Your task to perform on an android device: choose inbox layout in the gmail app Image 0: 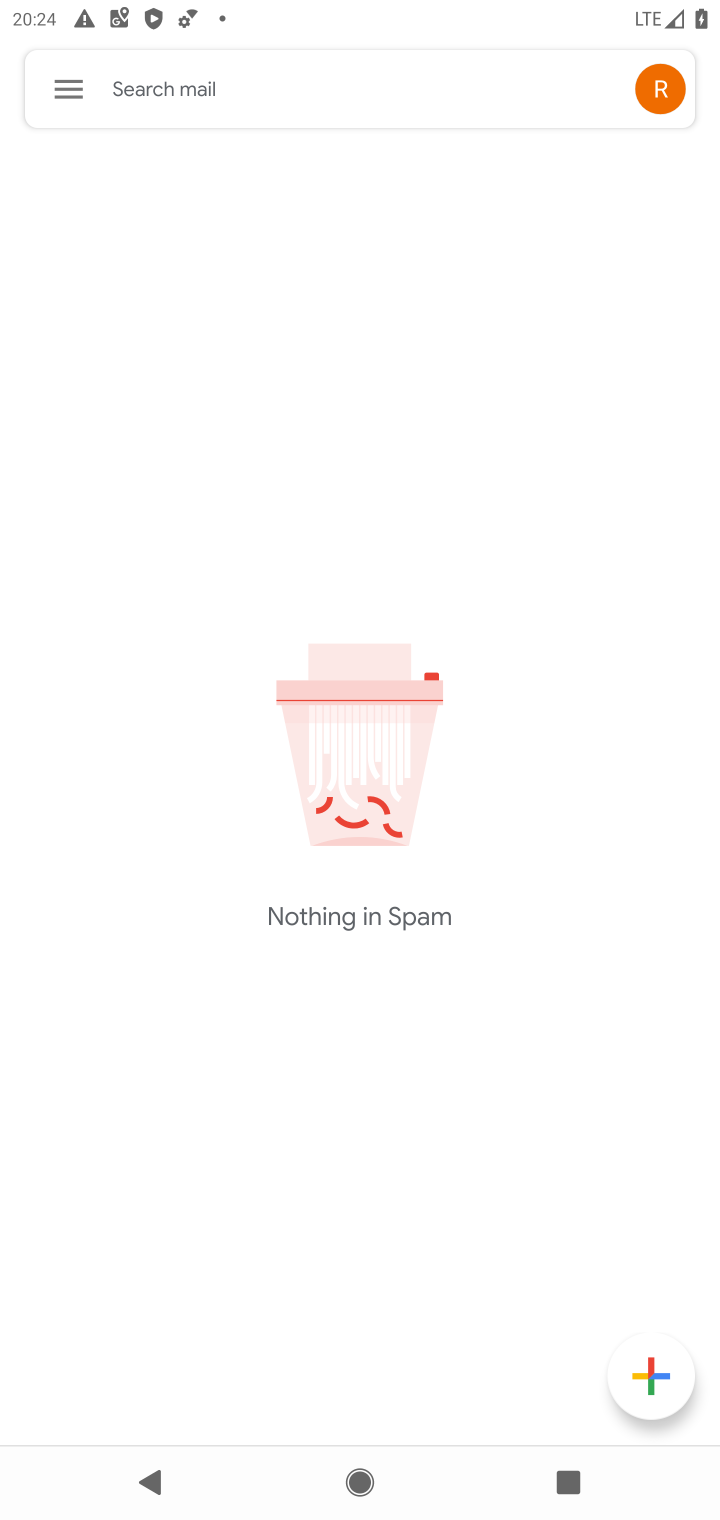
Step 0: press home button
Your task to perform on an android device: choose inbox layout in the gmail app Image 1: 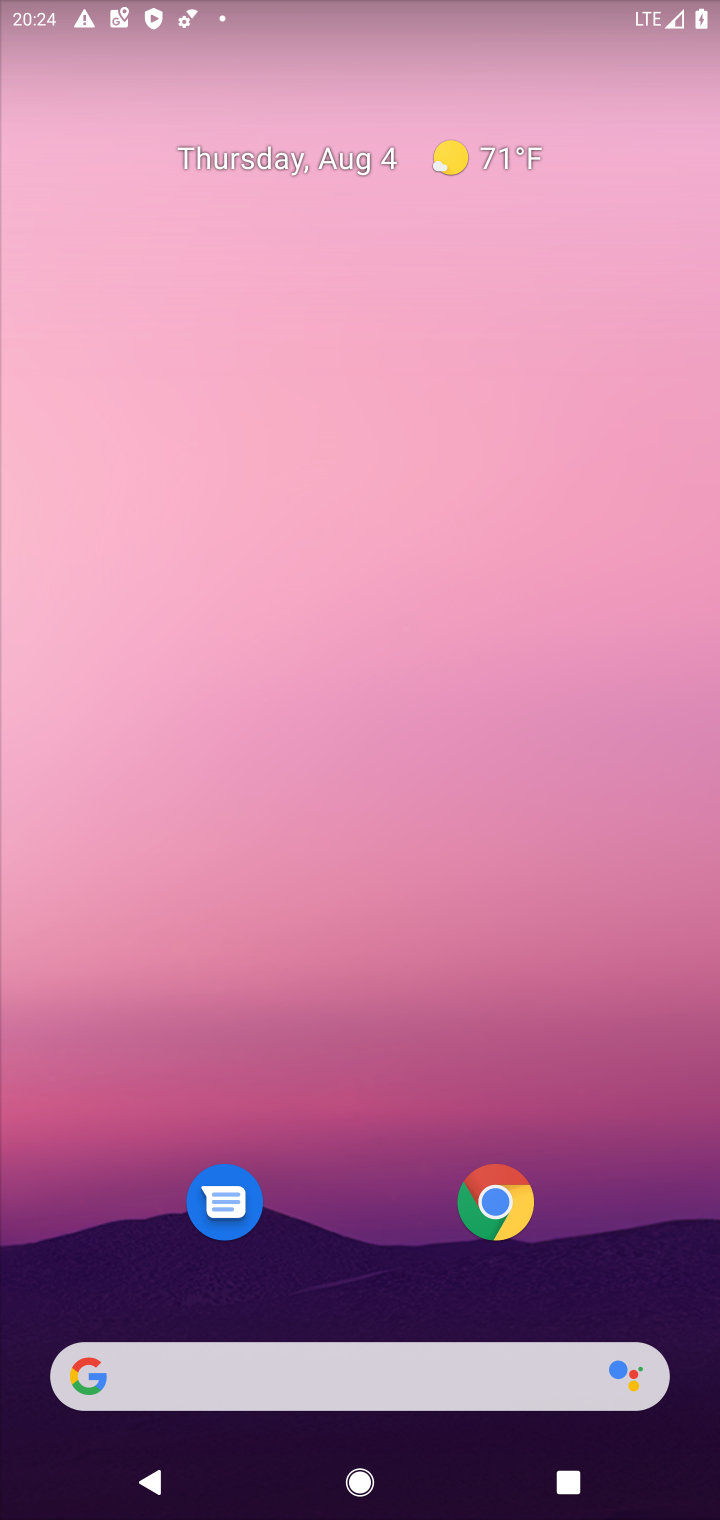
Step 1: drag from (393, 860) to (401, 356)
Your task to perform on an android device: choose inbox layout in the gmail app Image 2: 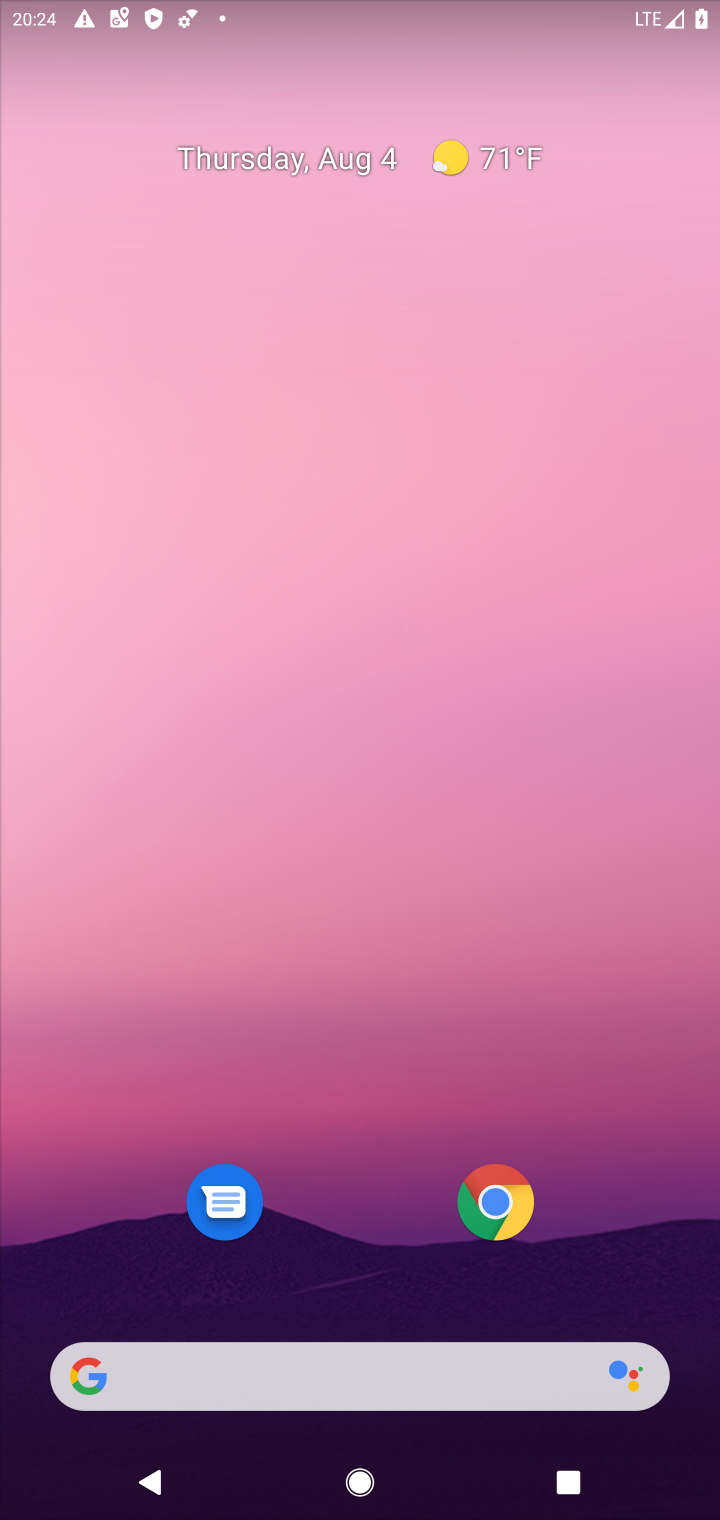
Step 2: drag from (360, 1234) to (412, 370)
Your task to perform on an android device: choose inbox layout in the gmail app Image 3: 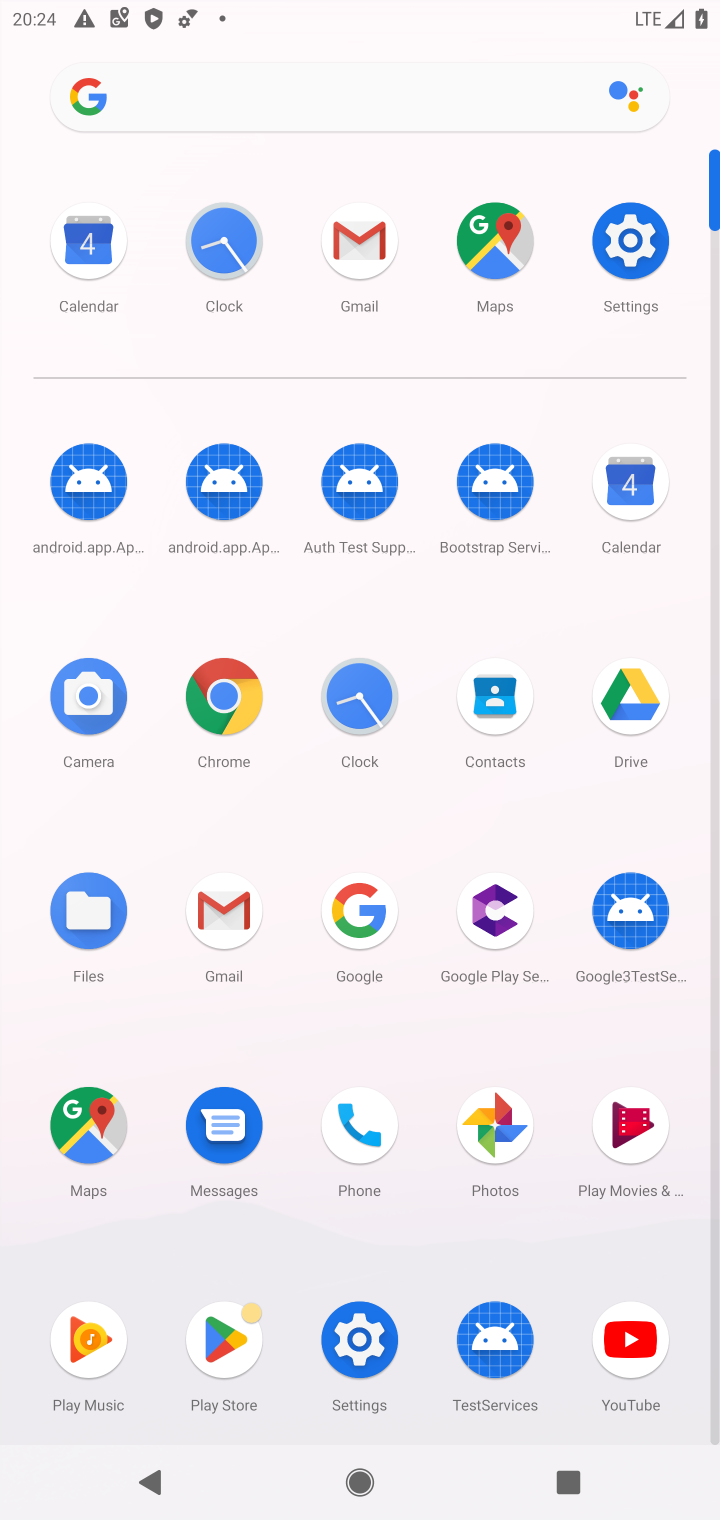
Step 3: click (375, 276)
Your task to perform on an android device: choose inbox layout in the gmail app Image 4: 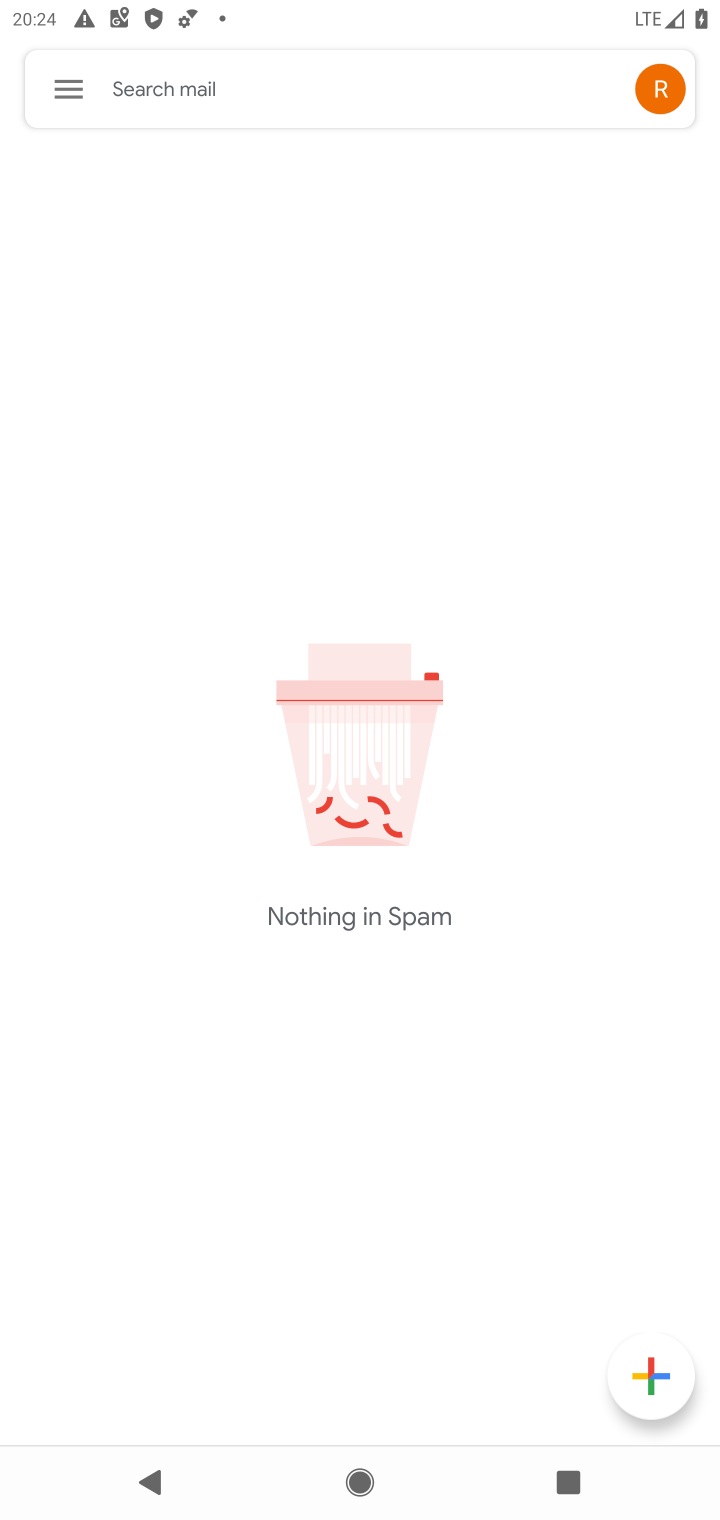
Step 4: click (53, 86)
Your task to perform on an android device: choose inbox layout in the gmail app Image 5: 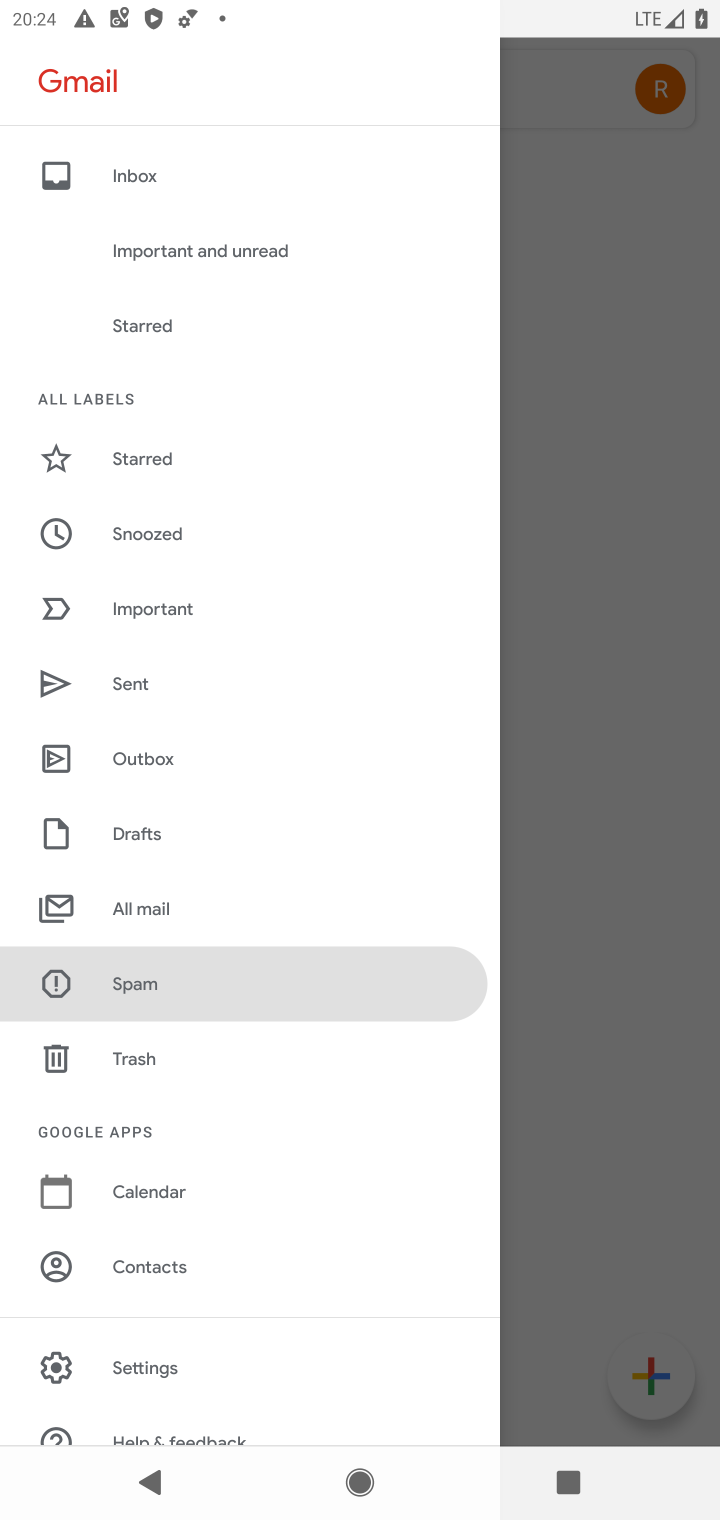
Step 5: click (208, 1381)
Your task to perform on an android device: choose inbox layout in the gmail app Image 6: 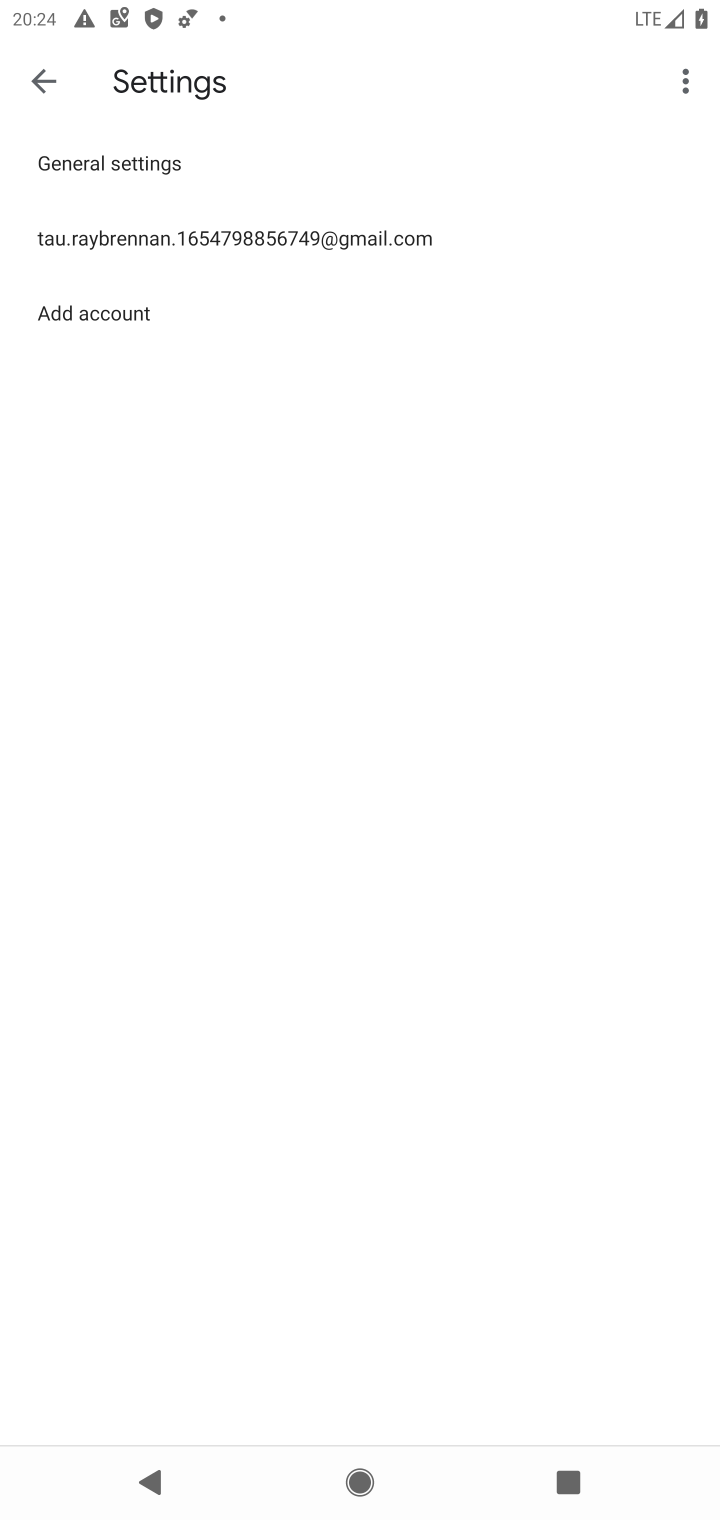
Step 6: click (322, 243)
Your task to perform on an android device: choose inbox layout in the gmail app Image 7: 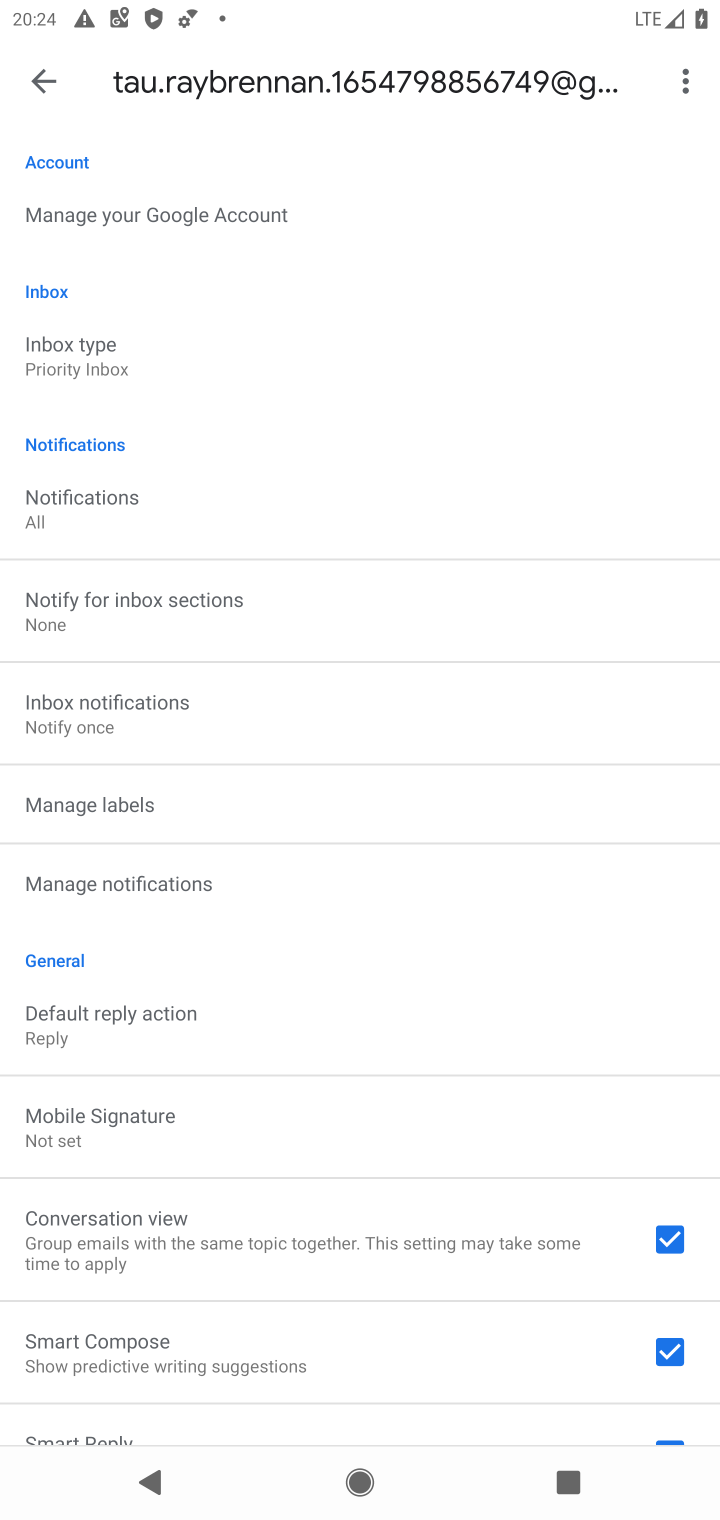
Step 7: click (175, 346)
Your task to perform on an android device: choose inbox layout in the gmail app Image 8: 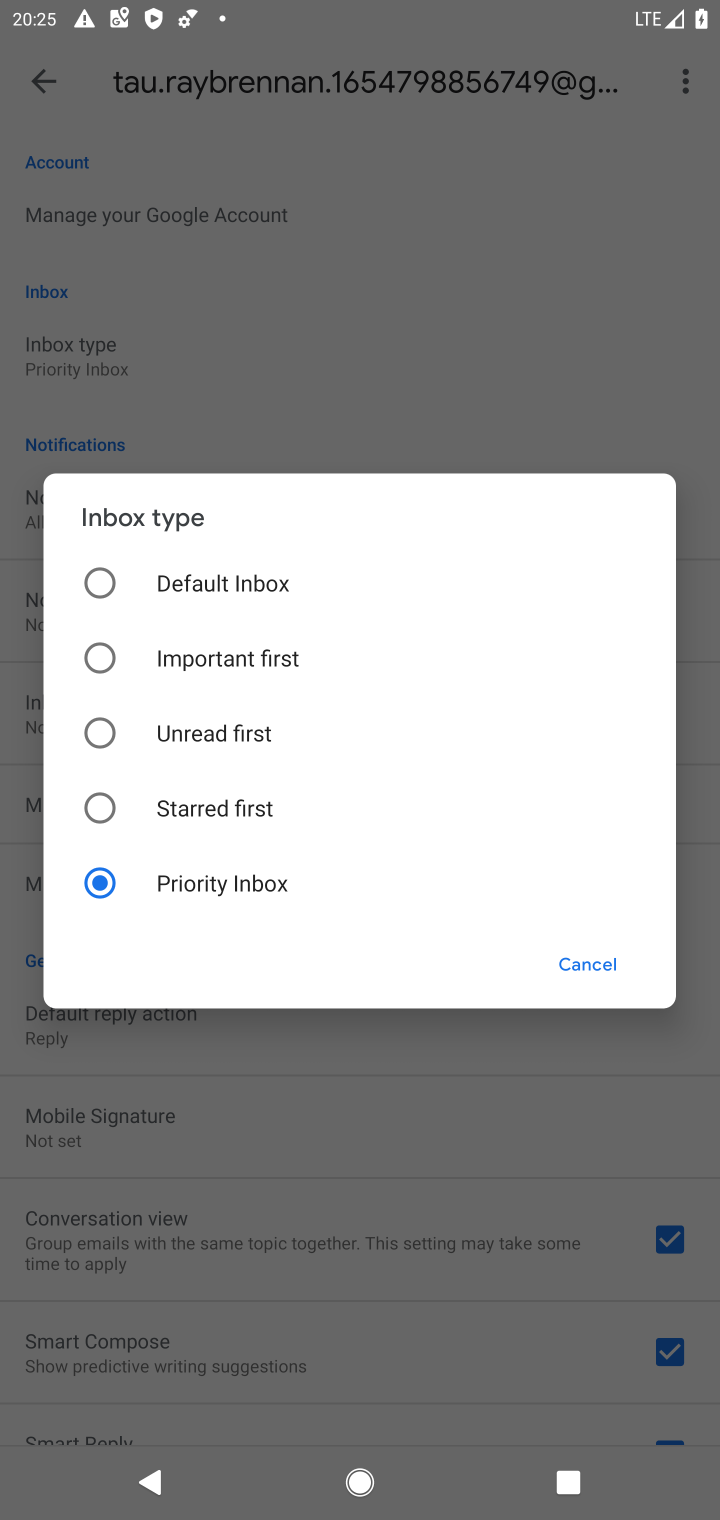
Step 8: click (235, 588)
Your task to perform on an android device: choose inbox layout in the gmail app Image 9: 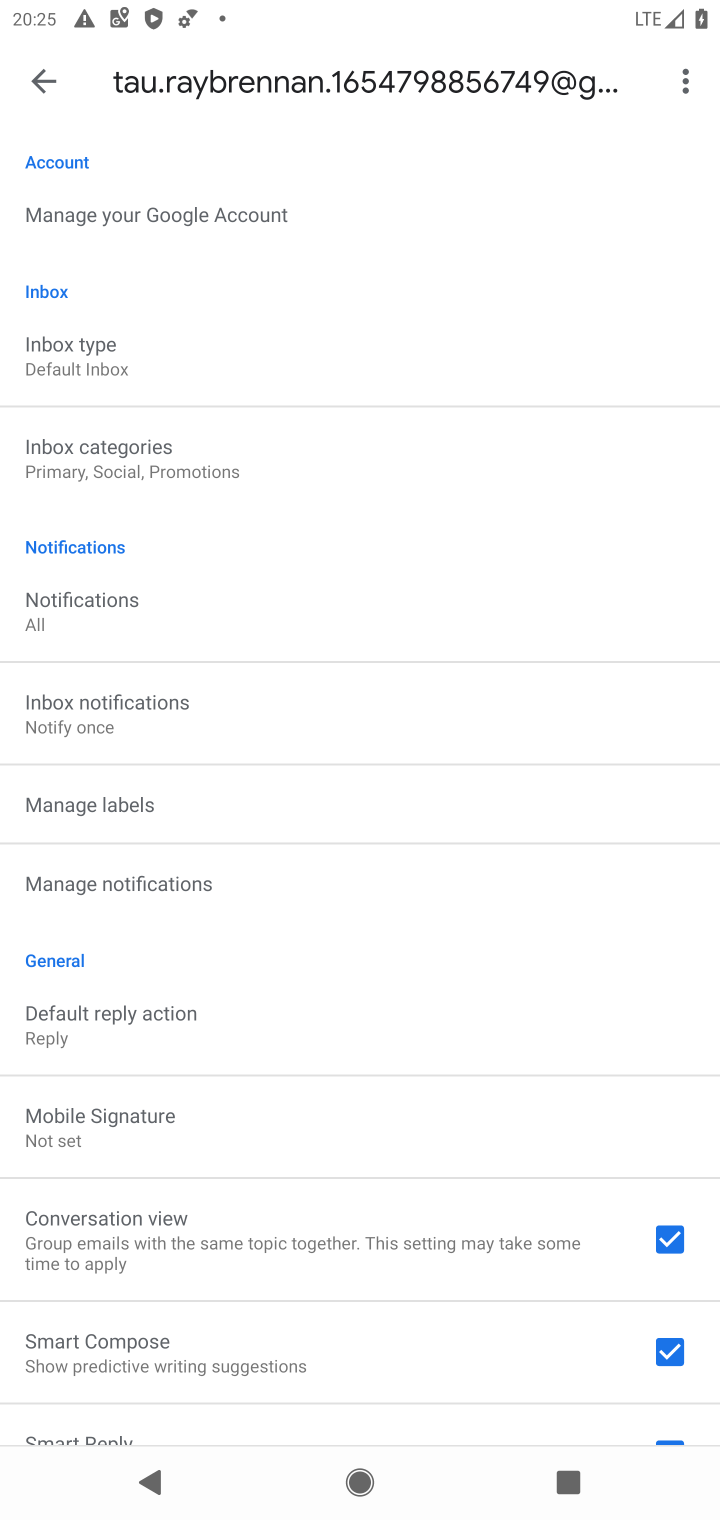
Step 9: task complete